Your task to perform on an android device: toggle notifications settings in the gmail app Image 0: 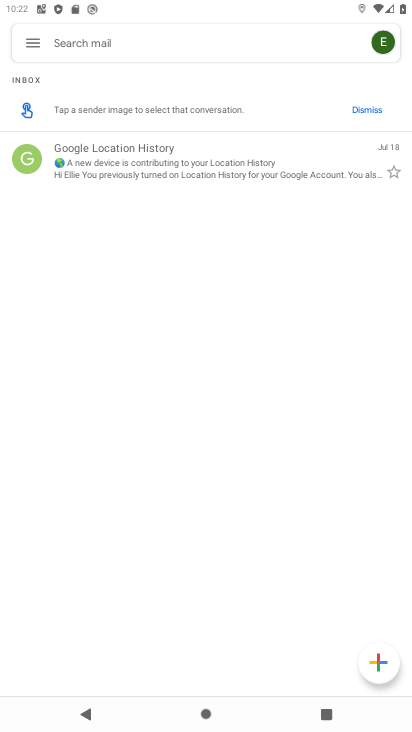
Step 0: press home button
Your task to perform on an android device: toggle notifications settings in the gmail app Image 1: 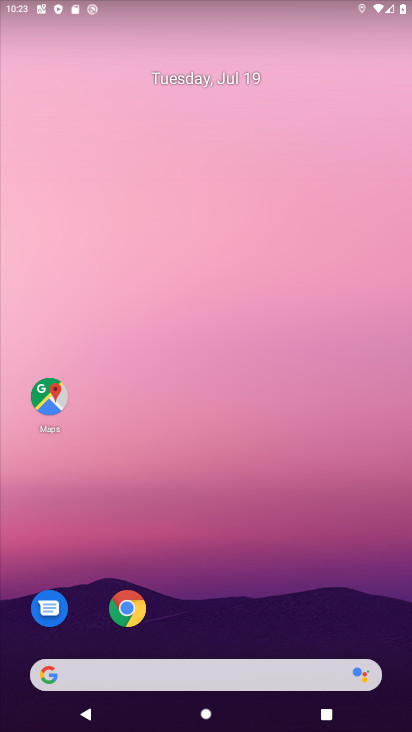
Step 1: drag from (207, 639) to (108, 23)
Your task to perform on an android device: toggle notifications settings in the gmail app Image 2: 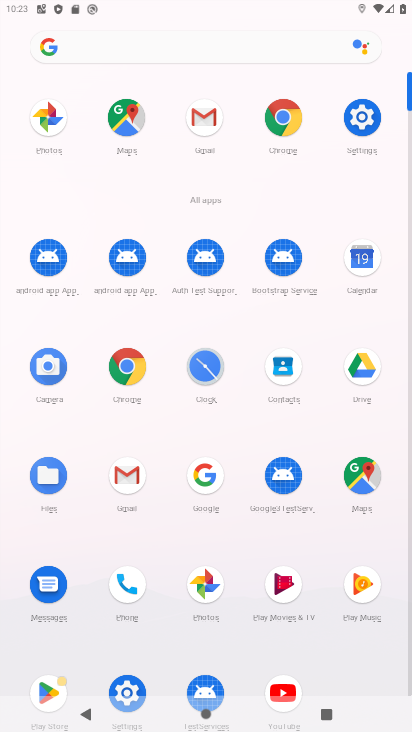
Step 2: click (121, 472)
Your task to perform on an android device: toggle notifications settings in the gmail app Image 3: 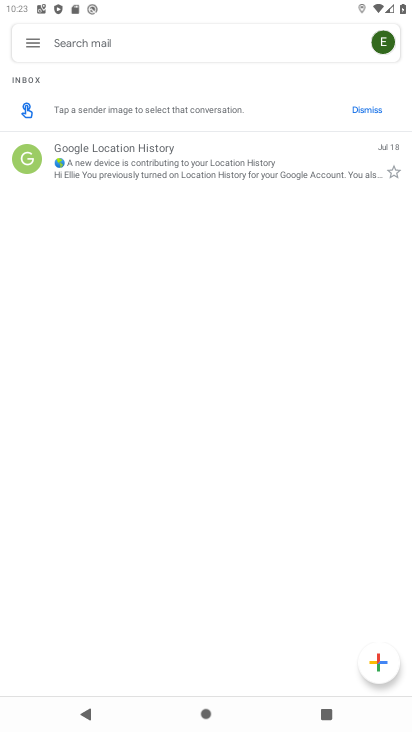
Step 3: click (24, 43)
Your task to perform on an android device: toggle notifications settings in the gmail app Image 4: 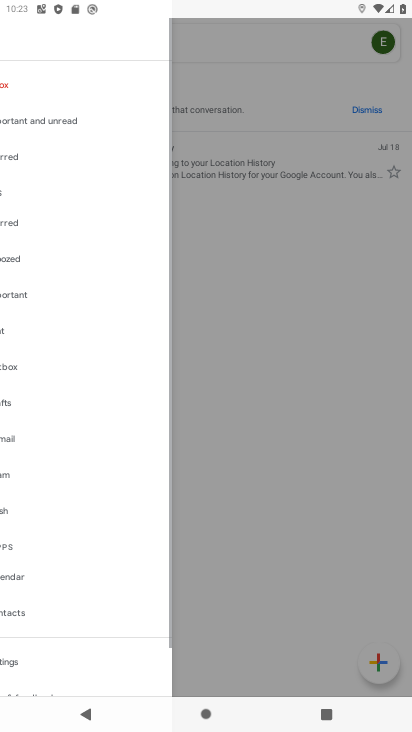
Step 4: click (24, 43)
Your task to perform on an android device: toggle notifications settings in the gmail app Image 5: 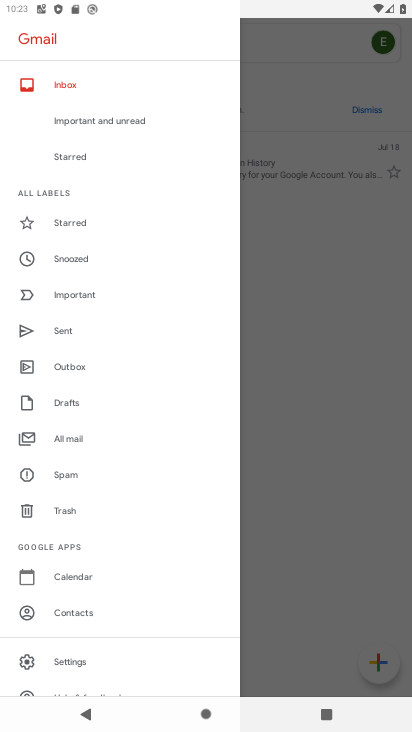
Step 5: click (67, 669)
Your task to perform on an android device: toggle notifications settings in the gmail app Image 6: 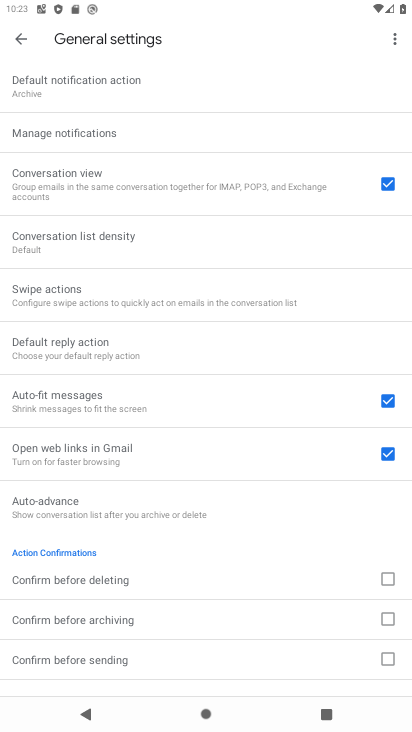
Step 6: click (120, 134)
Your task to perform on an android device: toggle notifications settings in the gmail app Image 7: 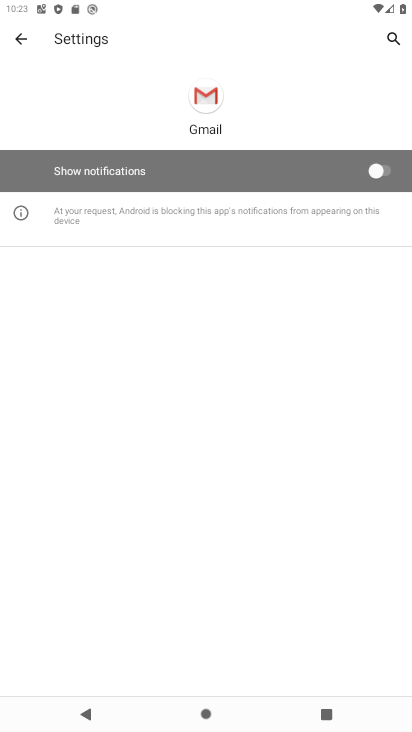
Step 7: click (370, 170)
Your task to perform on an android device: toggle notifications settings in the gmail app Image 8: 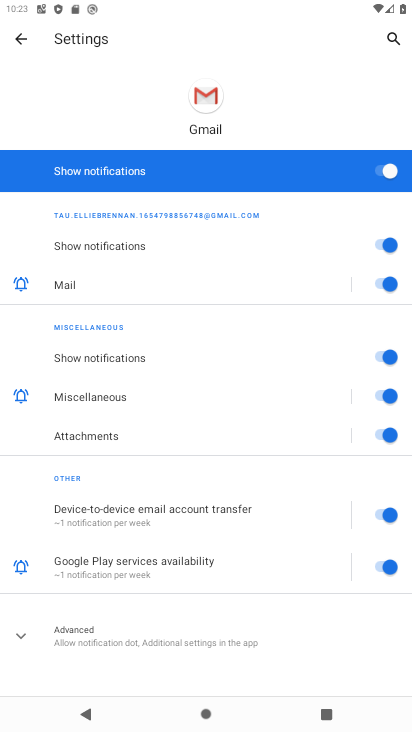
Step 8: task complete